Your task to perform on an android device: Show me popular games on the Play Store Image 0: 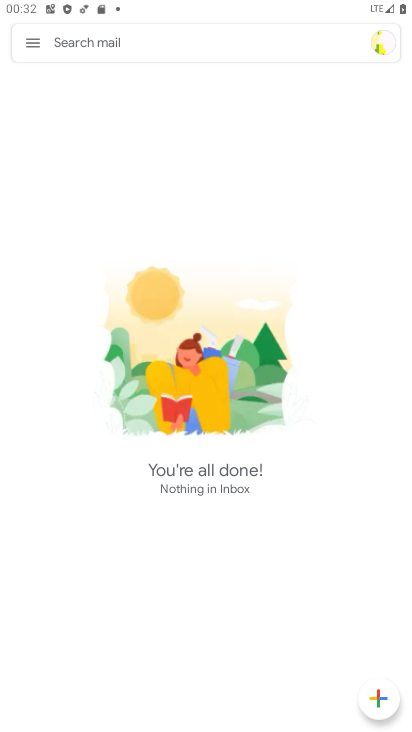
Step 0: press home button
Your task to perform on an android device: Show me popular games on the Play Store Image 1: 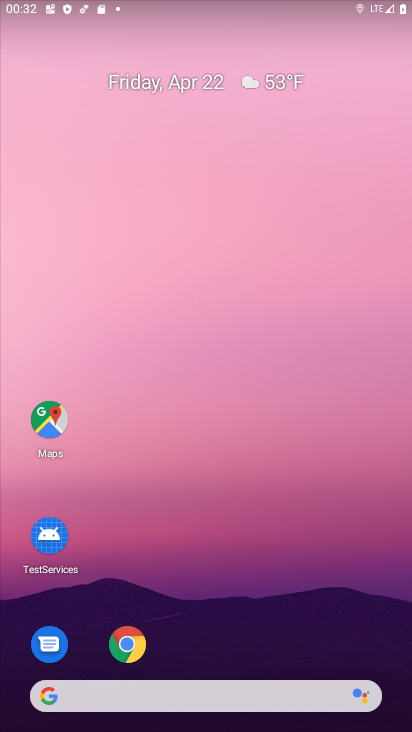
Step 1: drag from (284, 599) to (292, 182)
Your task to perform on an android device: Show me popular games on the Play Store Image 2: 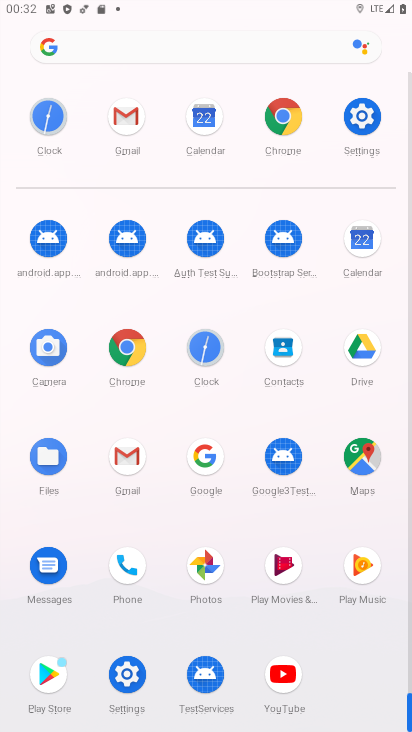
Step 2: click (40, 669)
Your task to perform on an android device: Show me popular games on the Play Store Image 3: 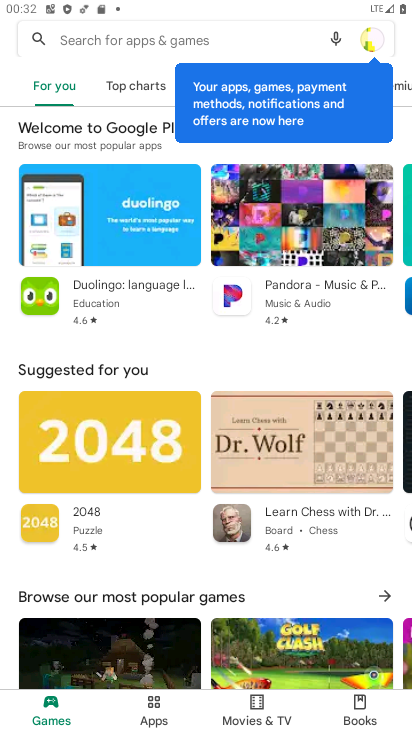
Step 3: click (12, 61)
Your task to perform on an android device: Show me popular games on the Play Store Image 4: 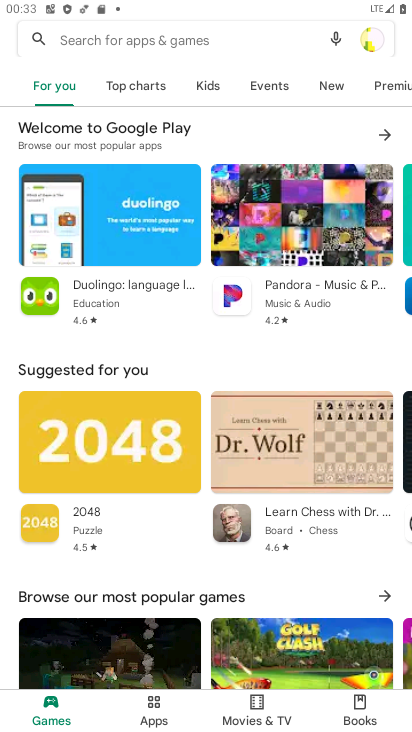
Step 4: drag from (299, 91) to (28, 86)
Your task to perform on an android device: Show me popular games on the Play Store Image 5: 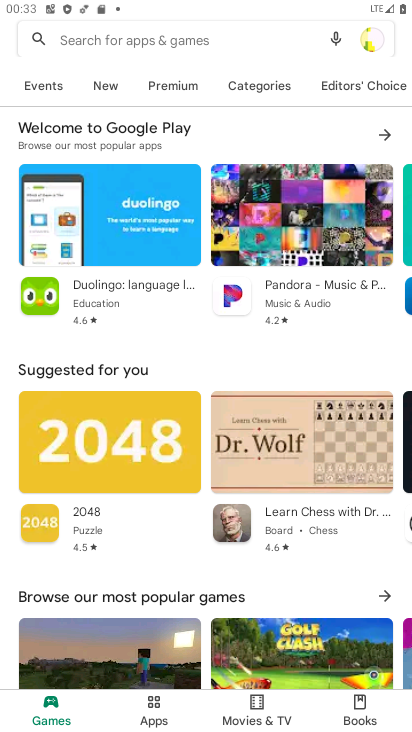
Step 5: drag from (119, 88) to (399, 120)
Your task to perform on an android device: Show me popular games on the Play Store Image 6: 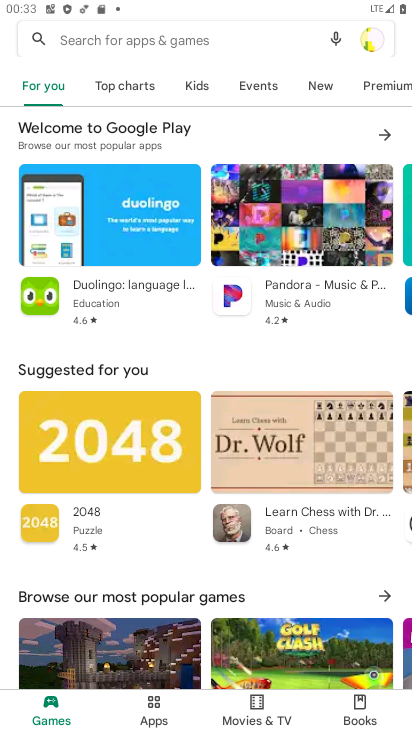
Step 6: drag from (319, 235) to (406, 216)
Your task to perform on an android device: Show me popular games on the Play Store Image 7: 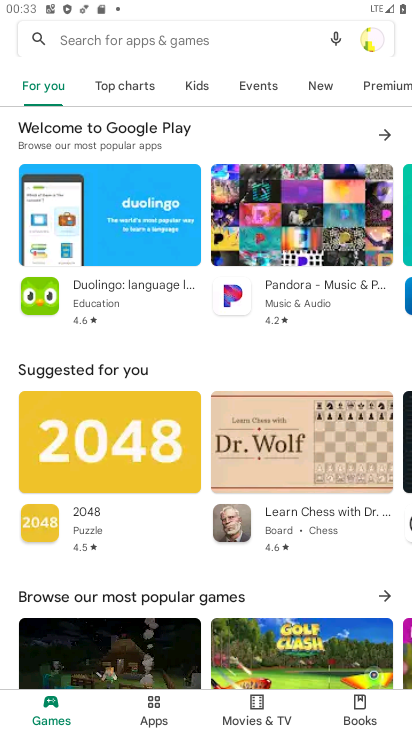
Step 7: click (386, 130)
Your task to perform on an android device: Show me popular games on the Play Store Image 8: 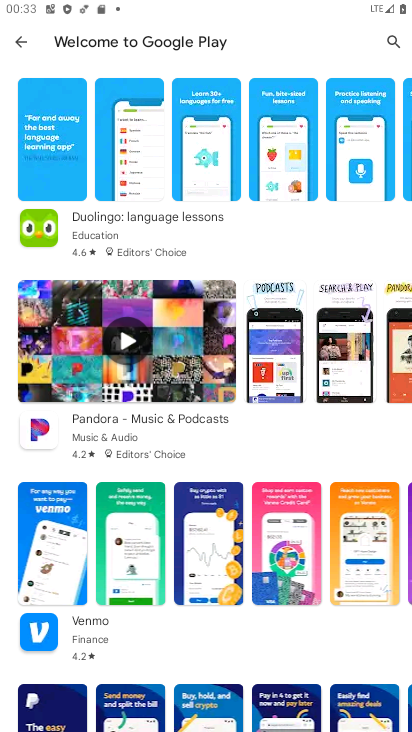
Step 8: task complete